Your task to perform on an android device: Open the Play Movies app and select the watchlist tab. Image 0: 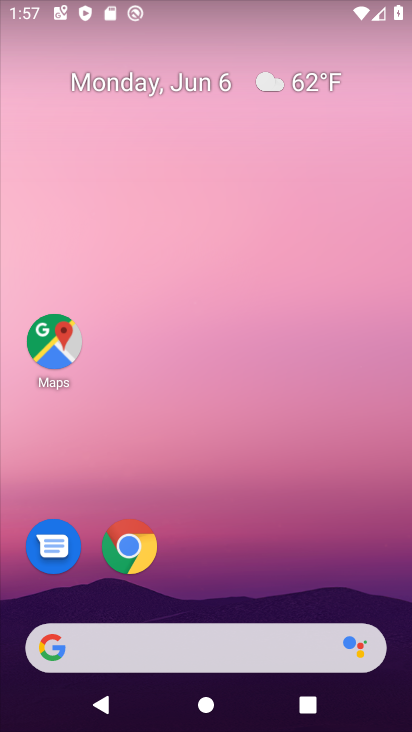
Step 0: drag from (259, 568) to (275, 162)
Your task to perform on an android device: Open the Play Movies app and select the watchlist tab. Image 1: 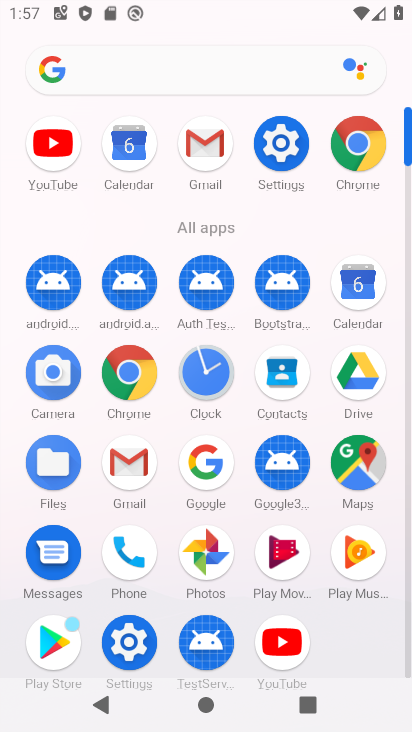
Step 1: click (289, 548)
Your task to perform on an android device: Open the Play Movies app and select the watchlist tab. Image 2: 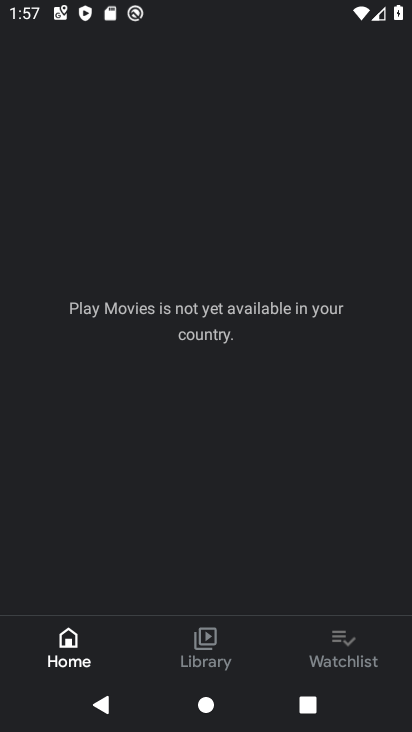
Step 2: click (344, 642)
Your task to perform on an android device: Open the Play Movies app and select the watchlist tab. Image 3: 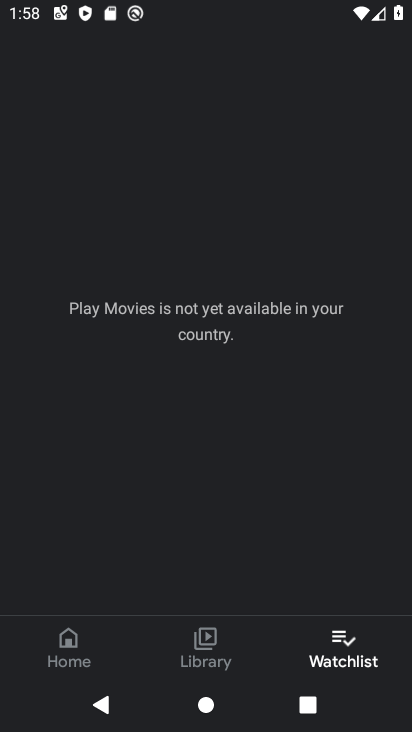
Step 3: task complete